Your task to perform on an android device: Open the camera Image 0: 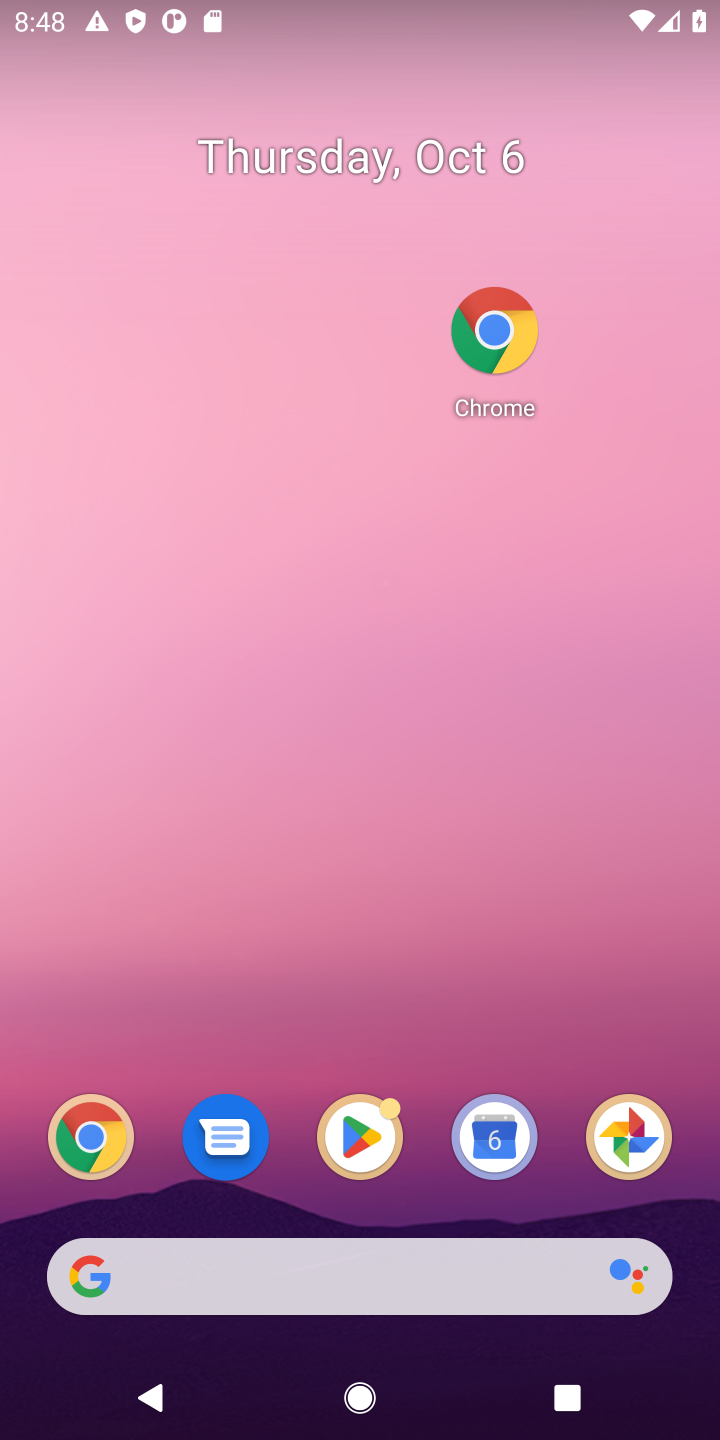
Step 0: drag from (476, 851) to (492, 29)
Your task to perform on an android device: Open the camera Image 1: 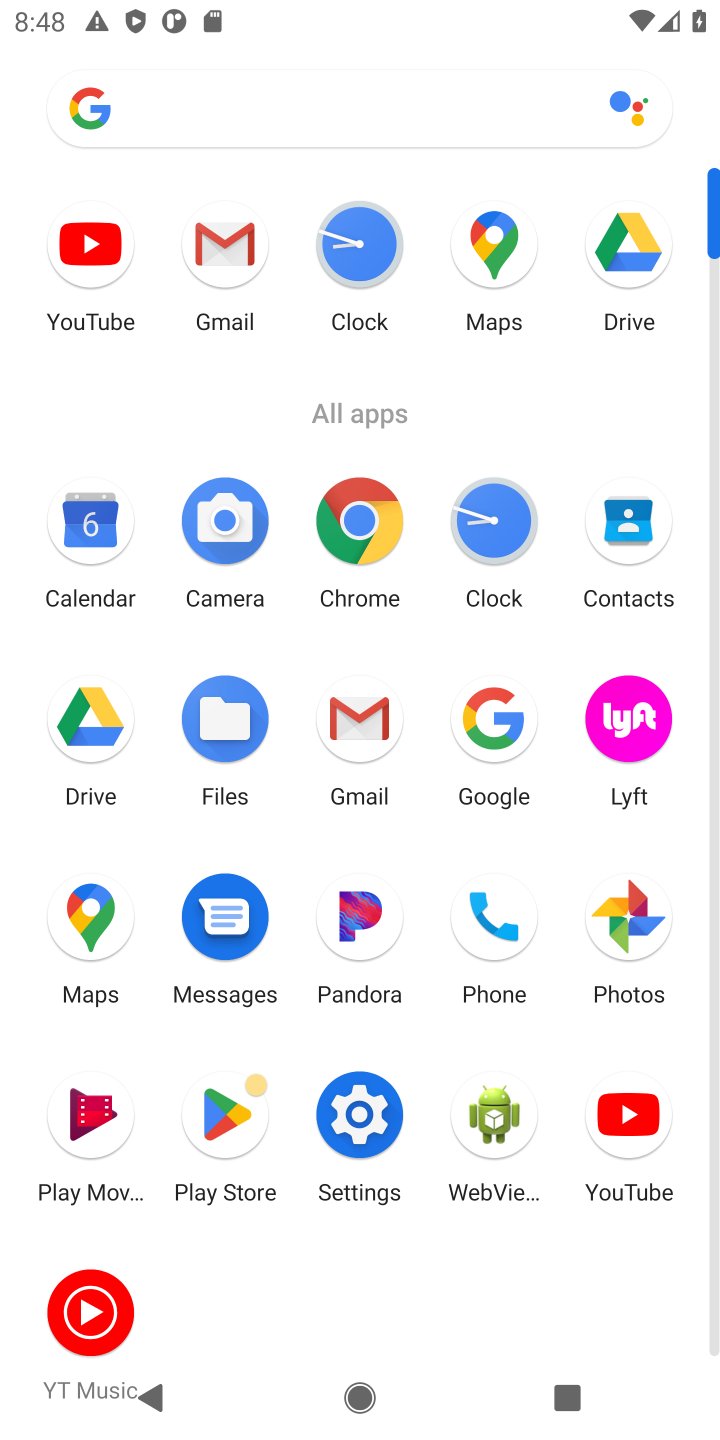
Step 1: click (231, 528)
Your task to perform on an android device: Open the camera Image 2: 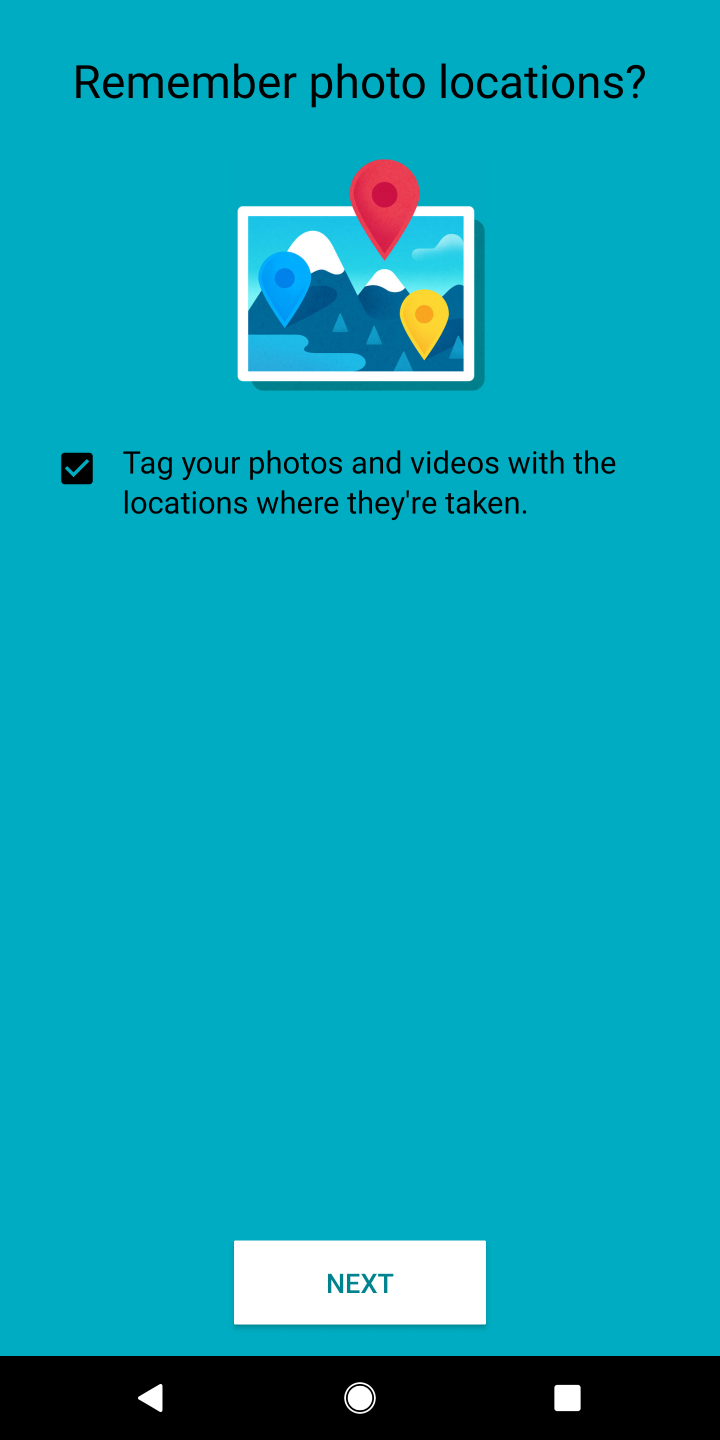
Step 2: click (318, 1290)
Your task to perform on an android device: Open the camera Image 3: 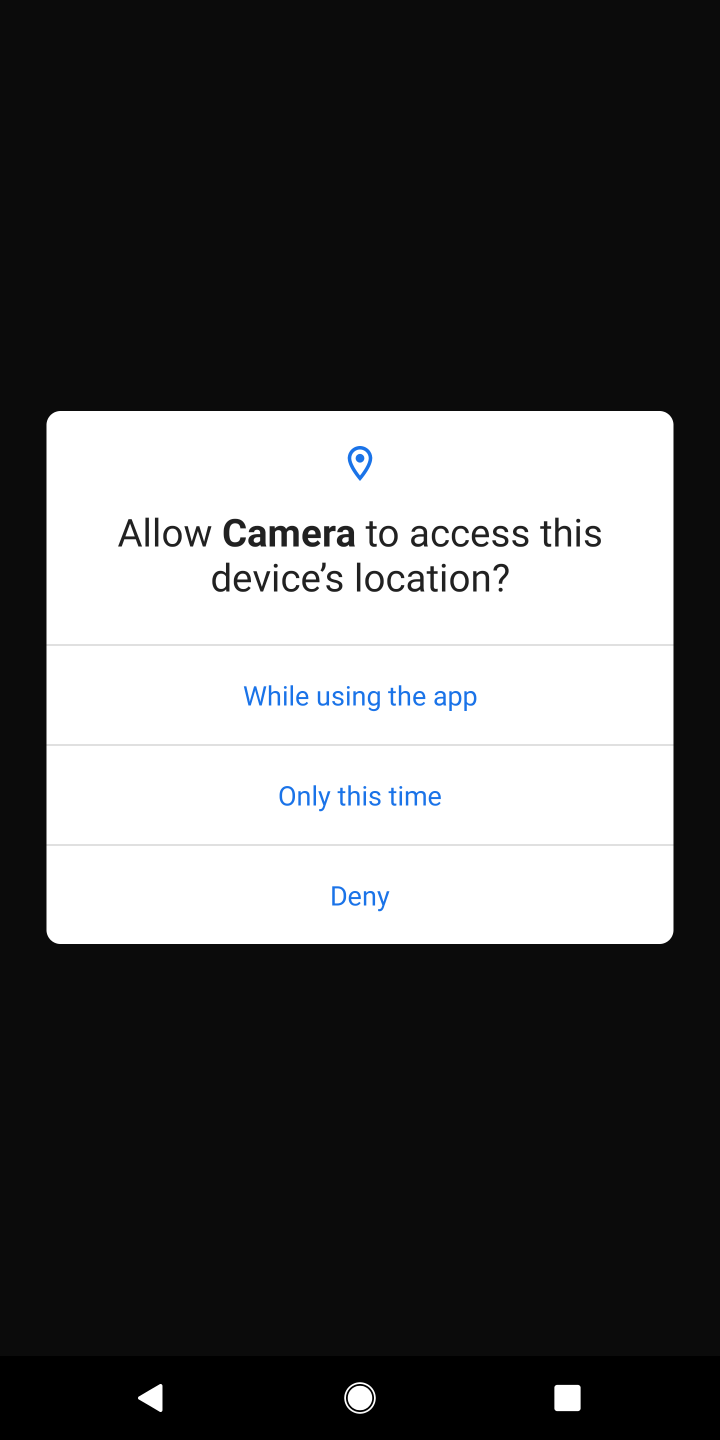
Step 3: click (335, 887)
Your task to perform on an android device: Open the camera Image 4: 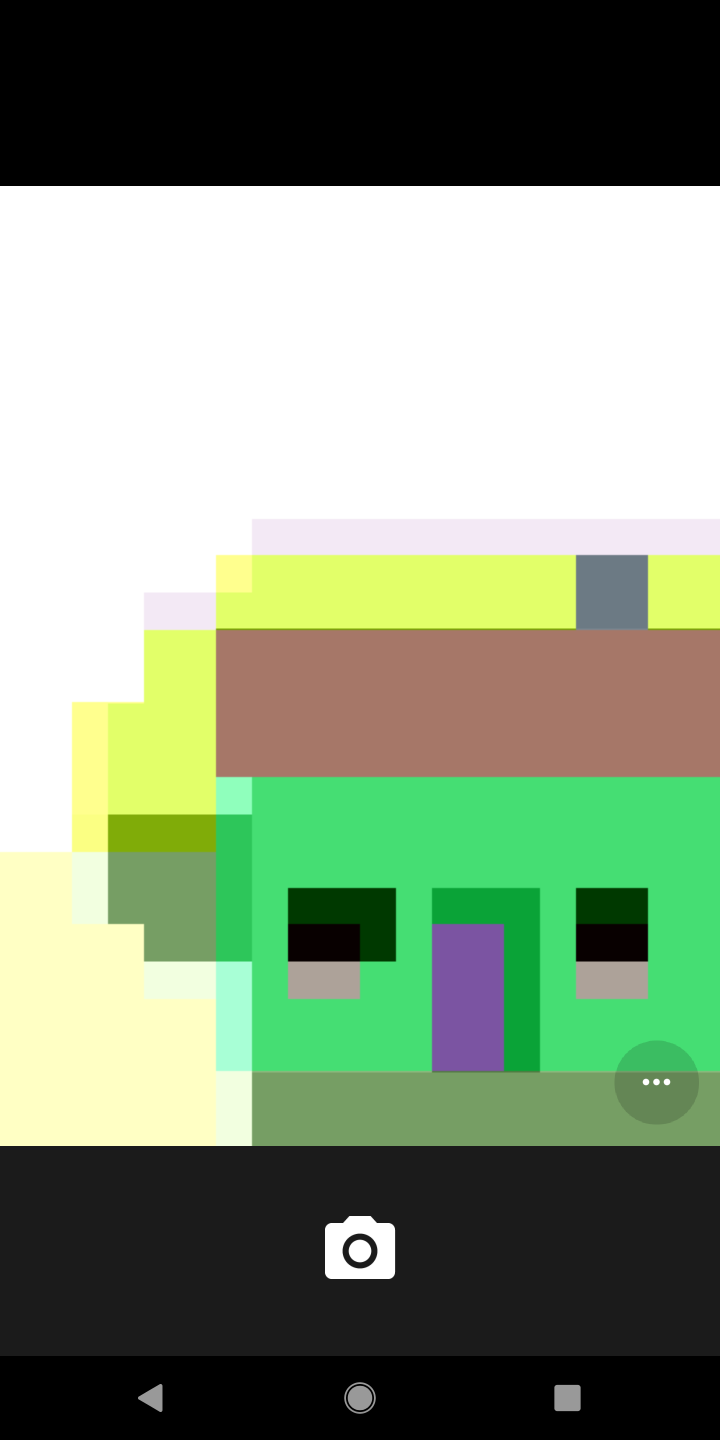
Step 4: task complete